Your task to perform on an android device: Open network settings Image 0: 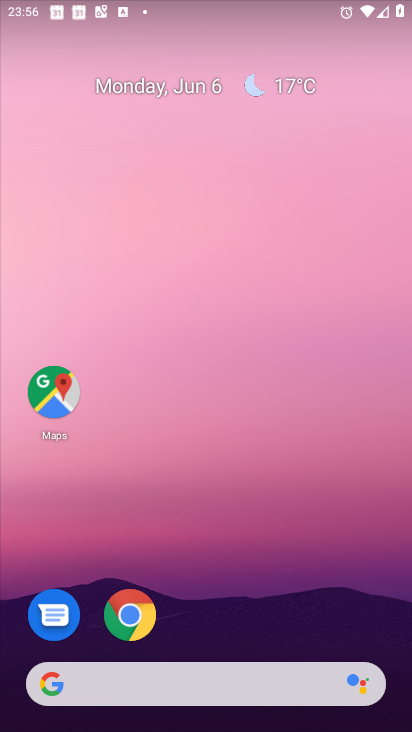
Step 0: click (55, 355)
Your task to perform on an android device: Open network settings Image 1: 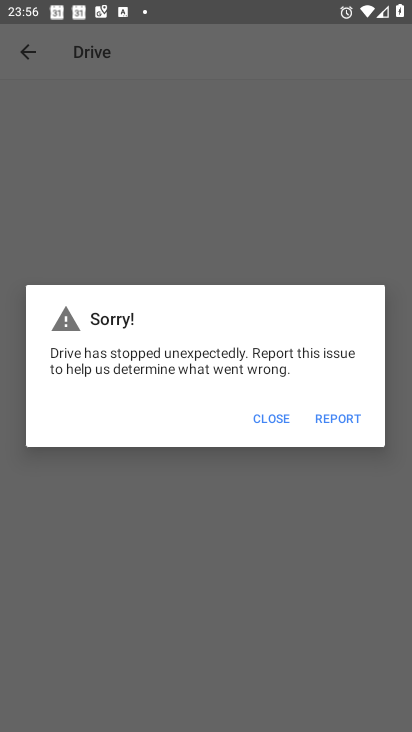
Step 1: press home button
Your task to perform on an android device: Open network settings Image 2: 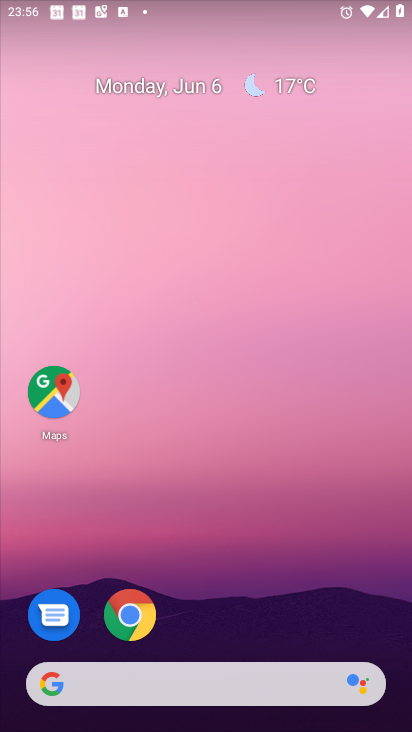
Step 2: drag from (384, 706) to (408, 252)
Your task to perform on an android device: Open network settings Image 3: 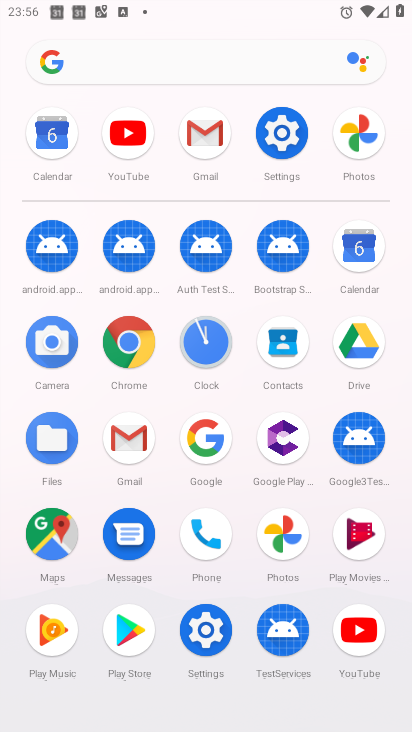
Step 3: click (305, 114)
Your task to perform on an android device: Open network settings Image 4: 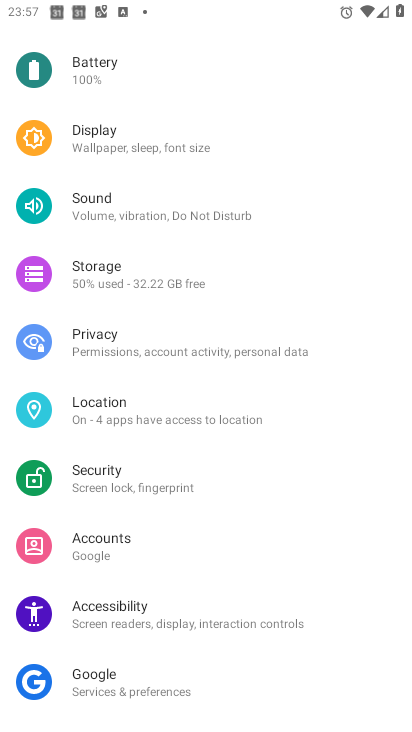
Step 4: drag from (269, 45) to (214, 385)
Your task to perform on an android device: Open network settings Image 5: 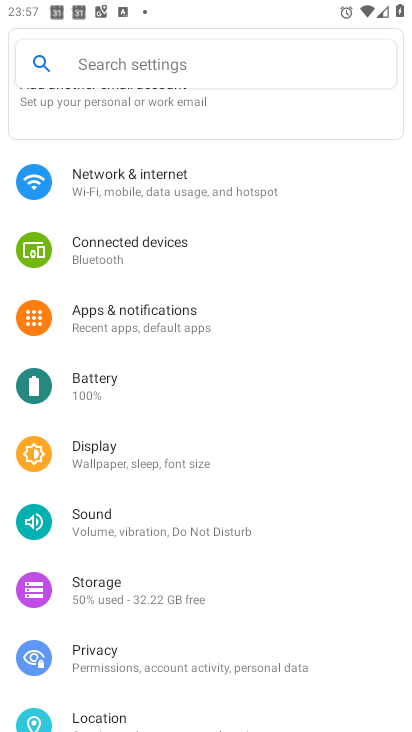
Step 5: click (106, 180)
Your task to perform on an android device: Open network settings Image 6: 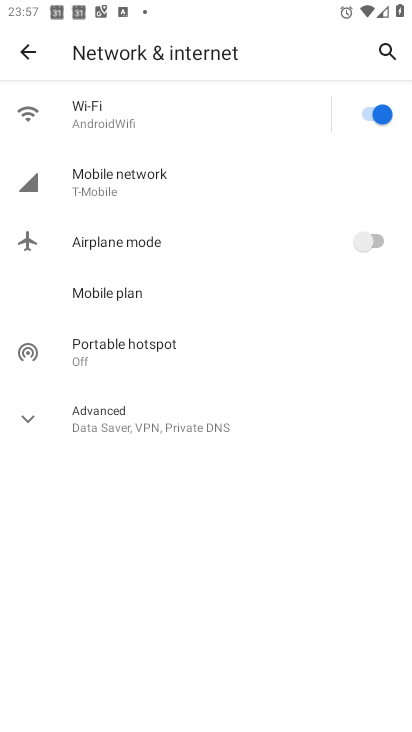
Step 6: click (151, 172)
Your task to perform on an android device: Open network settings Image 7: 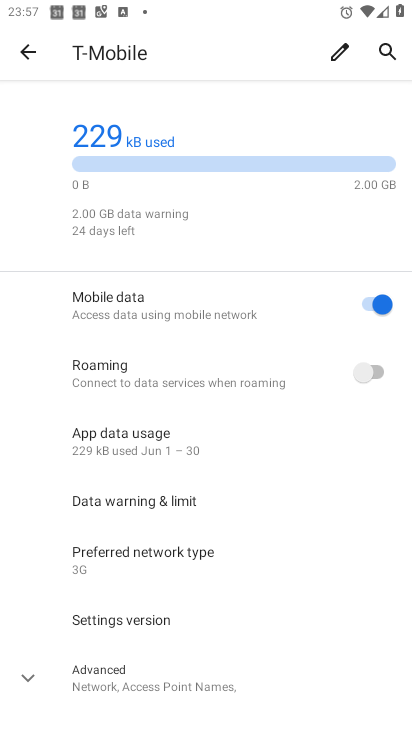
Step 7: click (26, 676)
Your task to perform on an android device: Open network settings Image 8: 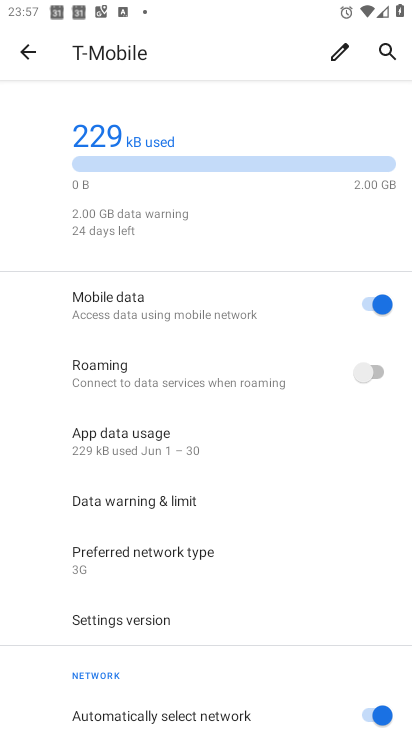
Step 8: task complete